Your task to perform on an android device: turn off data saver in the chrome app Image 0: 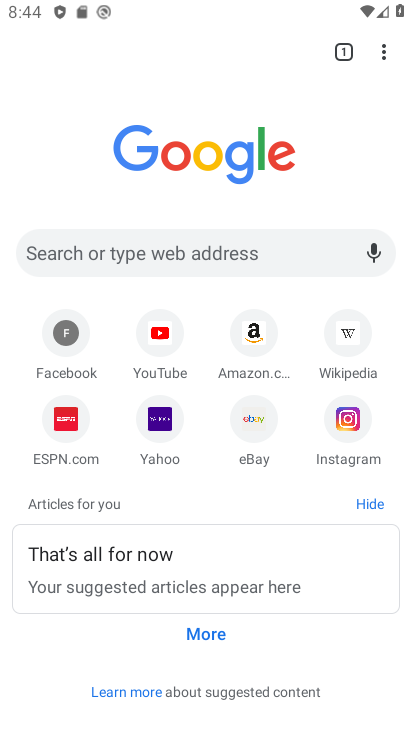
Step 0: drag from (379, 48) to (263, 441)
Your task to perform on an android device: turn off data saver in the chrome app Image 1: 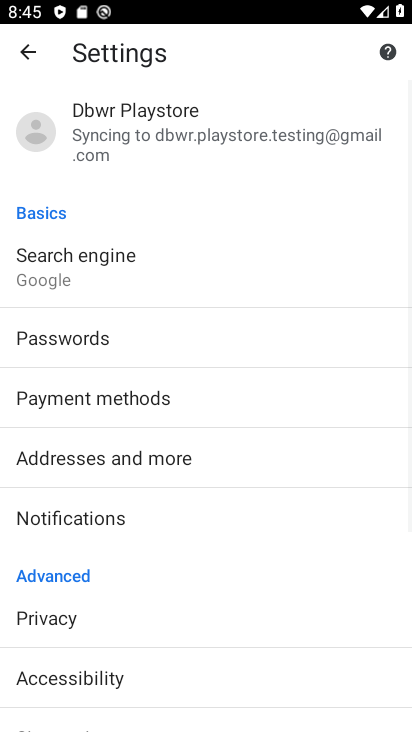
Step 1: drag from (110, 665) to (175, 169)
Your task to perform on an android device: turn off data saver in the chrome app Image 2: 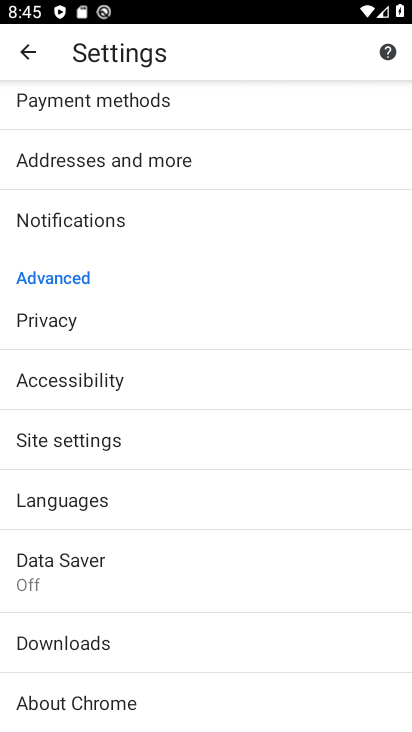
Step 2: click (103, 569)
Your task to perform on an android device: turn off data saver in the chrome app Image 3: 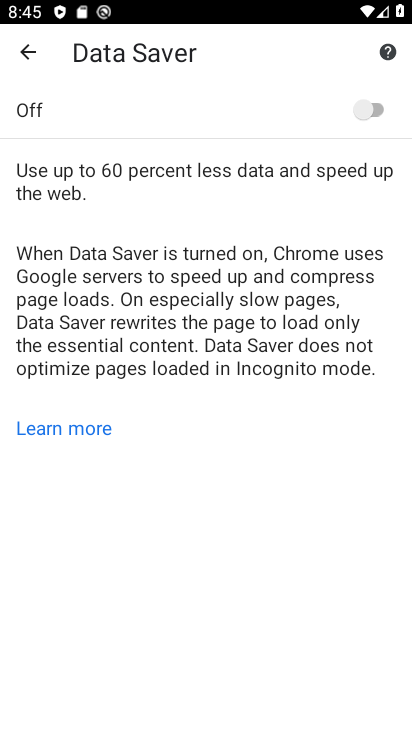
Step 3: task complete